Your task to perform on an android device: Open settings Image 0: 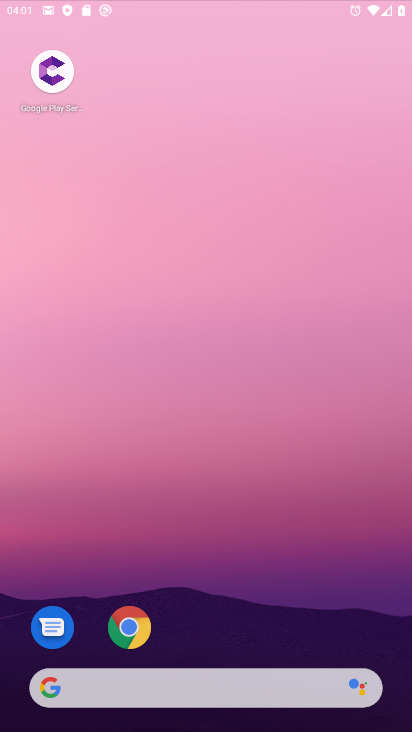
Step 0: press home button
Your task to perform on an android device: Open settings Image 1: 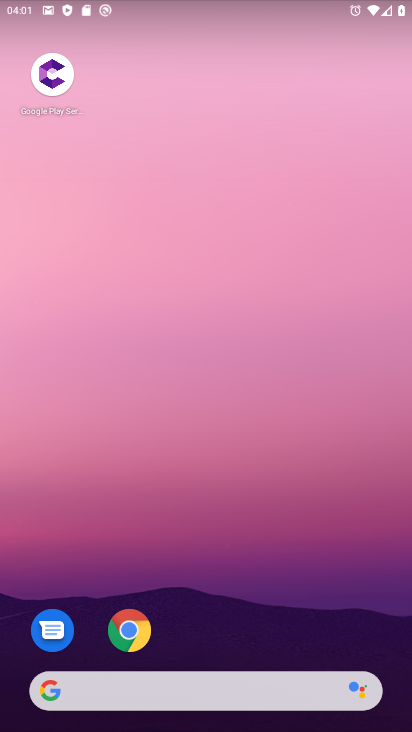
Step 1: drag from (199, 651) to (173, 188)
Your task to perform on an android device: Open settings Image 2: 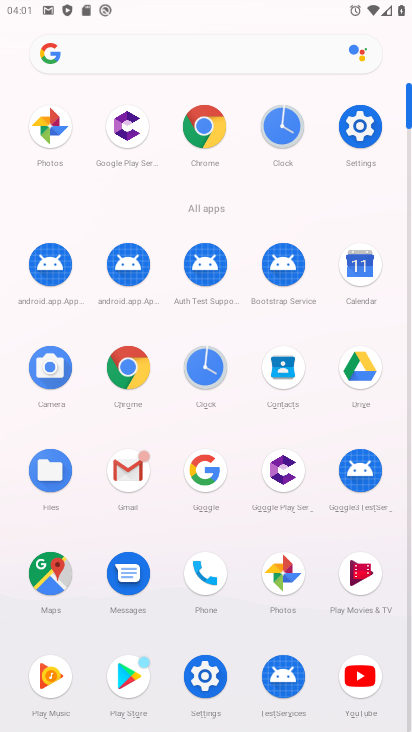
Step 2: click (357, 125)
Your task to perform on an android device: Open settings Image 3: 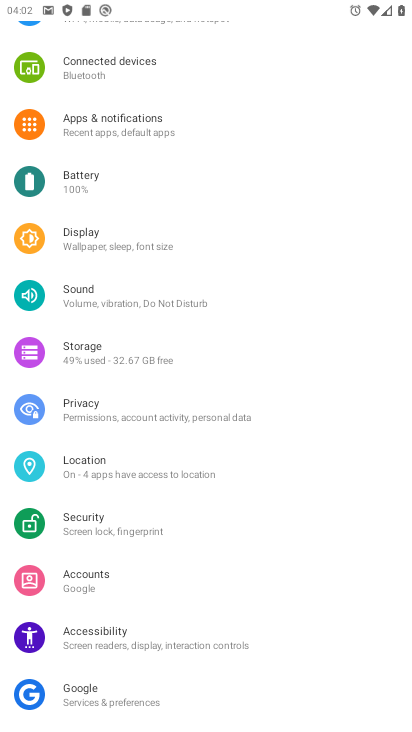
Step 3: task complete